Your task to perform on an android device: Go to Google maps Image 0: 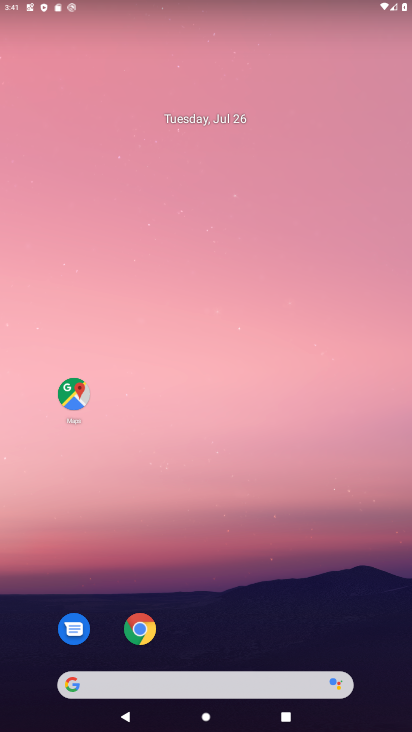
Step 0: click (63, 386)
Your task to perform on an android device: Go to Google maps Image 1: 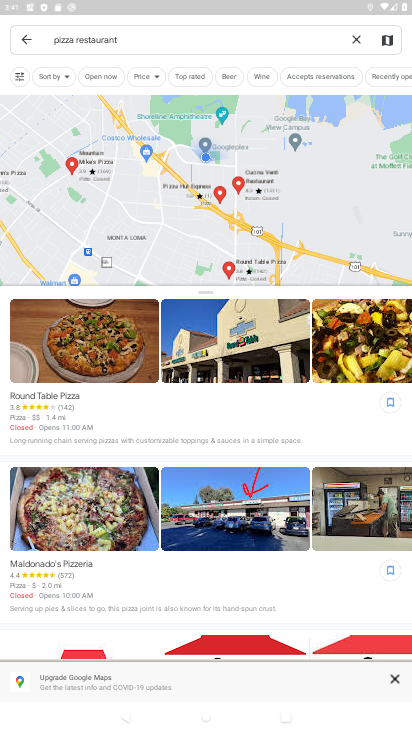
Step 1: task complete